Your task to perform on an android device: Search for Mexican restaurants on Maps Image 0: 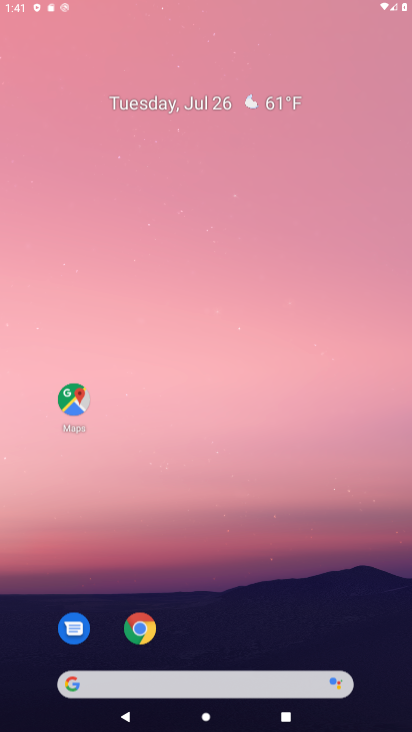
Step 0: click (266, 320)
Your task to perform on an android device: Search for Mexican restaurants on Maps Image 1: 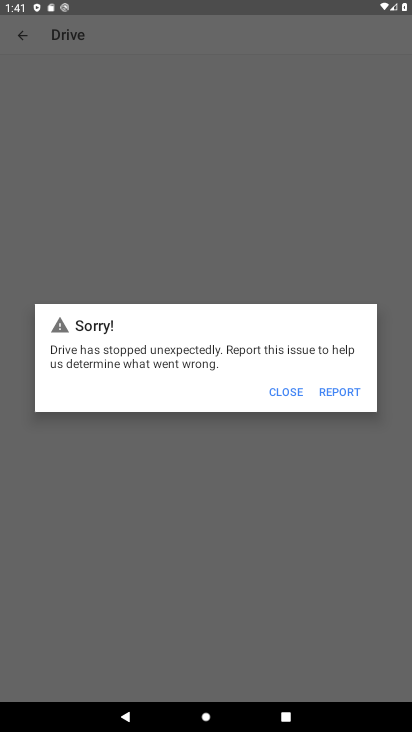
Step 1: press home button
Your task to perform on an android device: Search for Mexican restaurants on Maps Image 2: 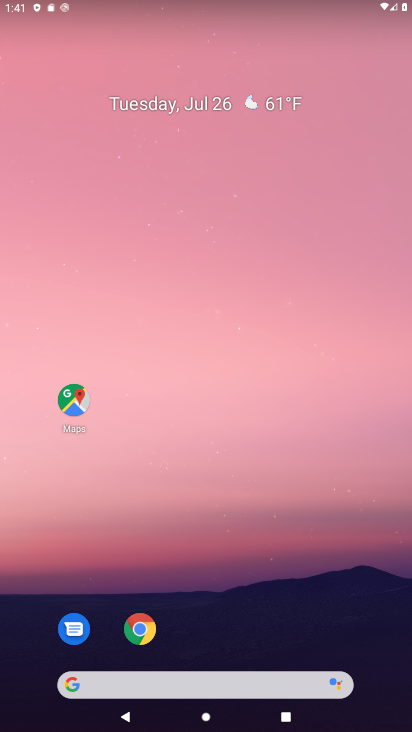
Step 2: click (65, 403)
Your task to perform on an android device: Search for Mexican restaurants on Maps Image 3: 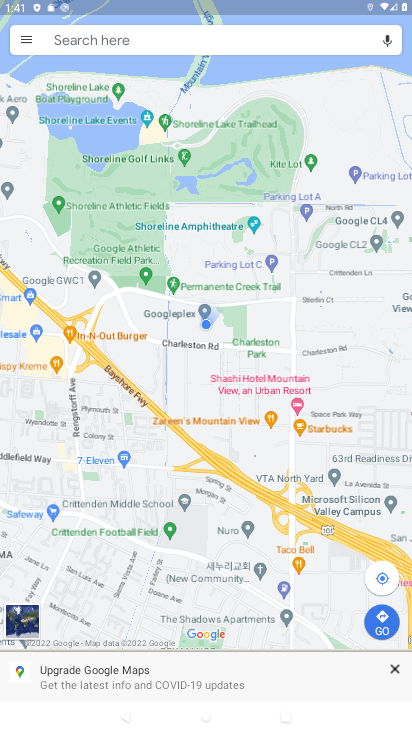
Step 3: click (147, 27)
Your task to perform on an android device: Search for Mexican restaurants on Maps Image 4: 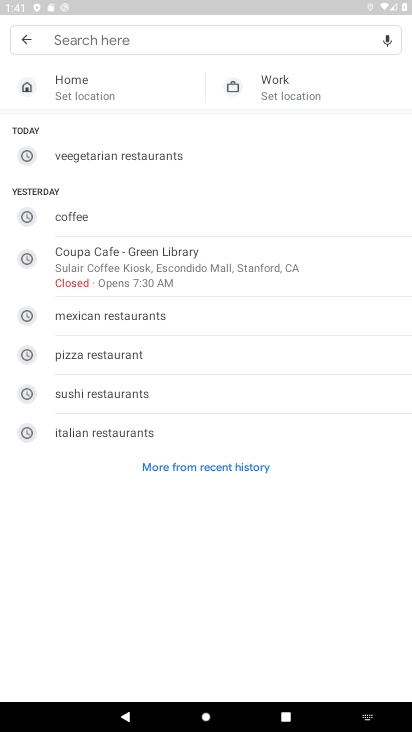
Step 4: click (142, 322)
Your task to perform on an android device: Search for Mexican restaurants on Maps Image 5: 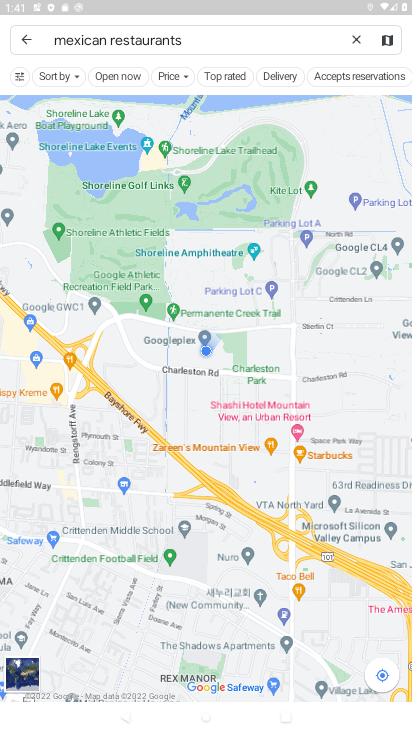
Step 5: task complete